Your task to perform on an android device: allow cookies in the chrome app Image 0: 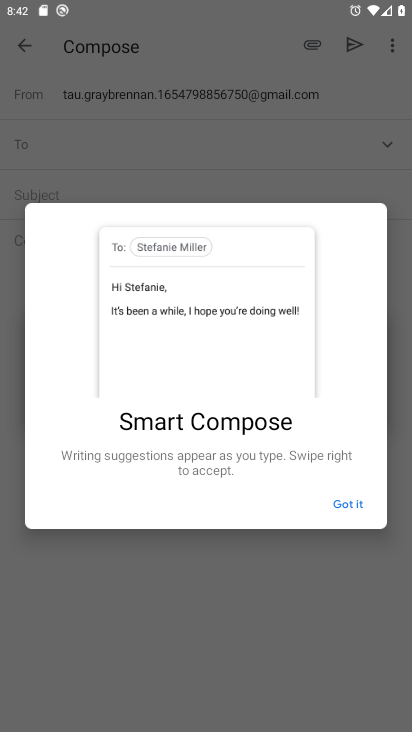
Step 0: press home button
Your task to perform on an android device: allow cookies in the chrome app Image 1: 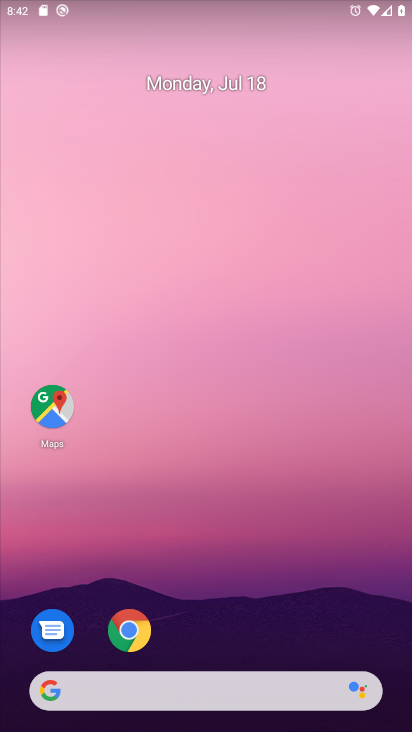
Step 1: click (153, 639)
Your task to perform on an android device: allow cookies in the chrome app Image 2: 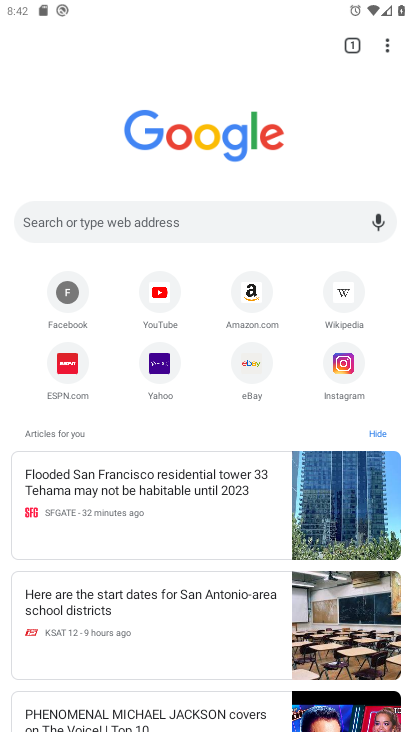
Step 2: click (382, 40)
Your task to perform on an android device: allow cookies in the chrome app Image 3: 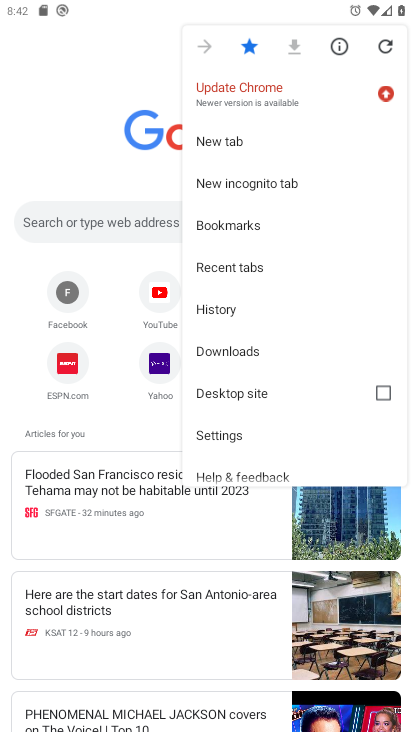
Step 3: click (242, 438)
Your task to perform on an android device: allow cookies in the chrome app Image 4: 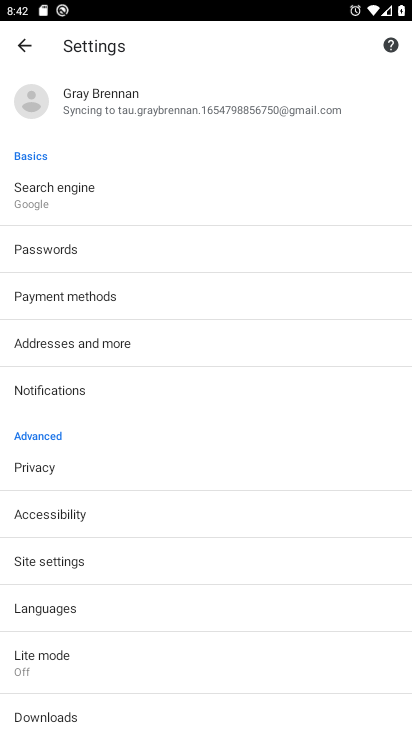
Step 4: click (73, 563)
Your task to perform on an android device: allow cookies in the chrome app Image 5: 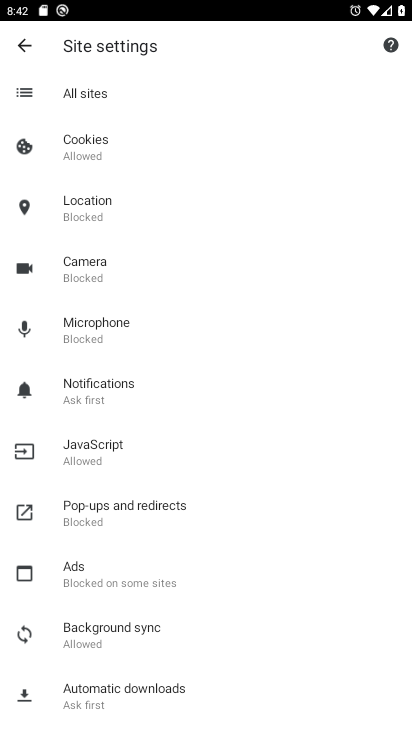
Step 5: click (110, 150)
Your task to perform on an android device: allow cookies in the chrome app Image 6: 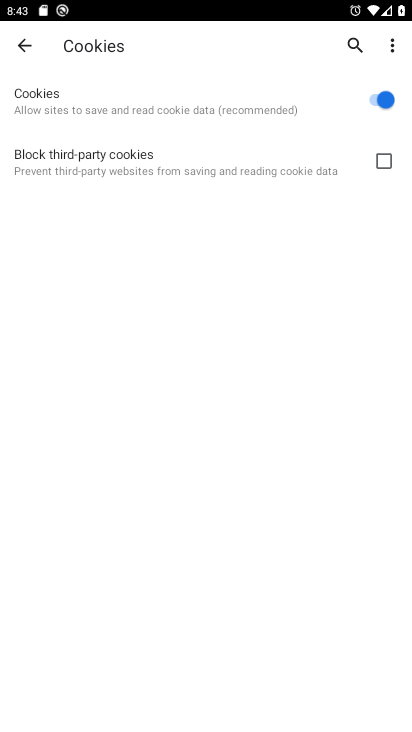
Step 6: task complete